Your task to perform on an android device: Open internet settings Image 0: 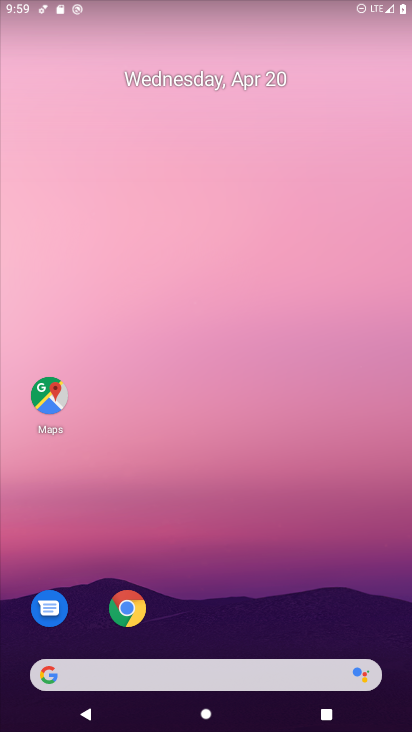
Step 0: drag from (215, 634) to (253, 113)
Your task to perform on an android device: Open internet settings Image 1: 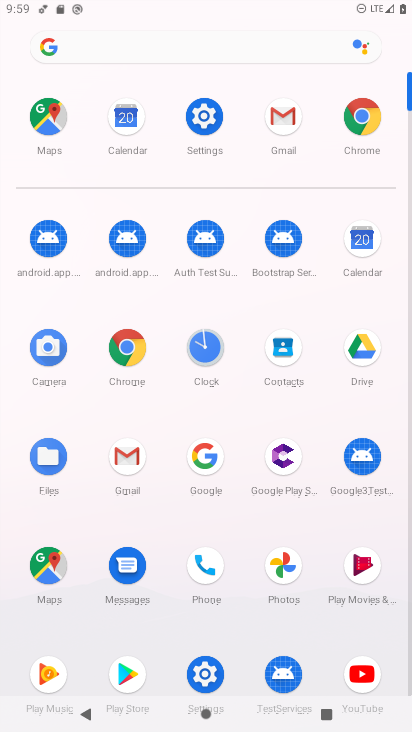
Step 1: click (202, 129)
Your task to perform on an android device: Open internet settings Image 2: 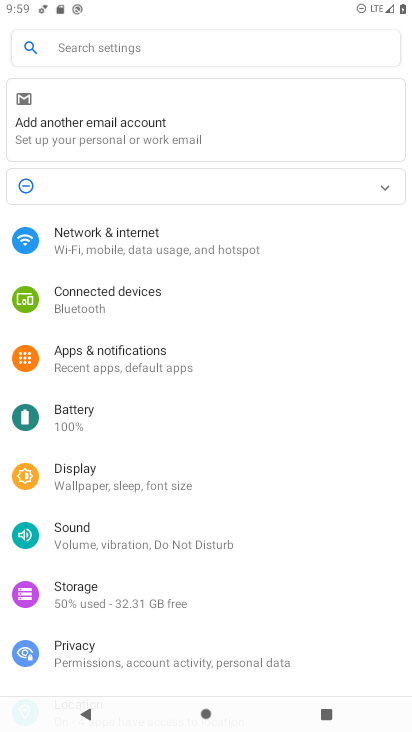
Step 2: click (113, 254)
Your task to perform on an android device: Open internet settings Image 3: 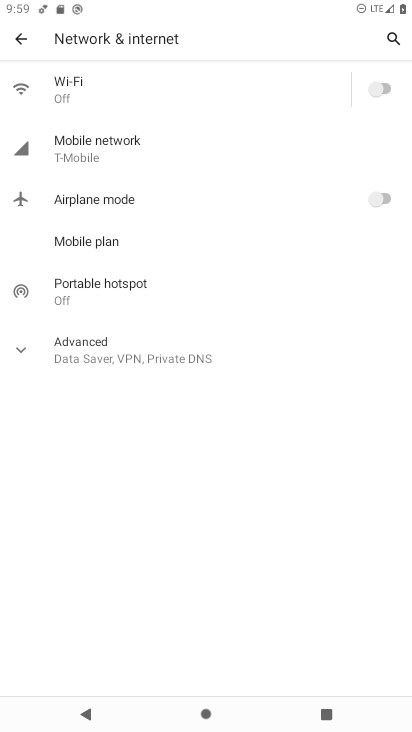
Step 3: task complete